Your task to perform on an android device: set default search engine in the chrome app Image 0: 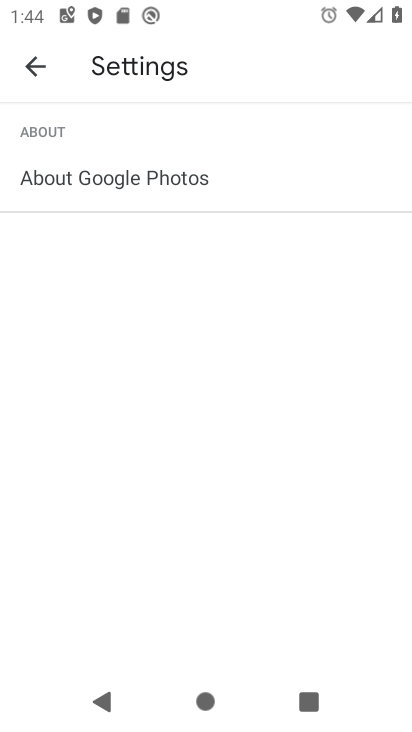
Step 0: press home button
Your task to perform on an android device: set default search engine in the chrome app Image 1: 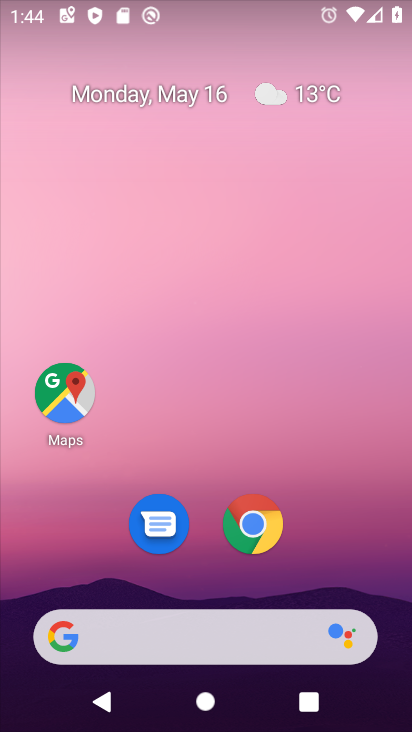
Step 1: click (264, 533)
Your task to perform on an android device: set default search engine in the chrome app Image 2: 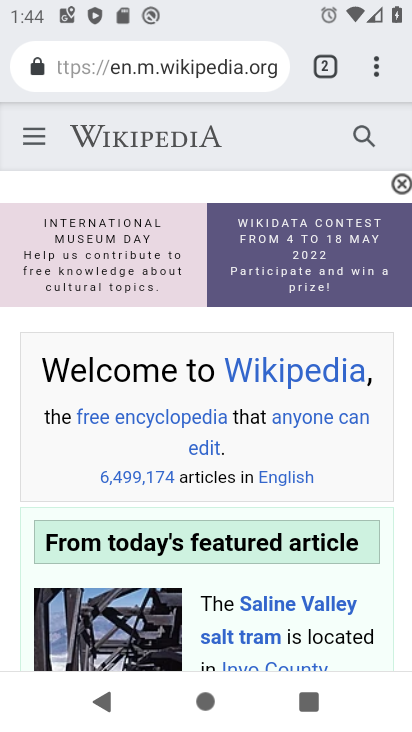
Step 2: click (369, 59)
Your task to perform on an android device: set default search engine in the chrome app Image 3: 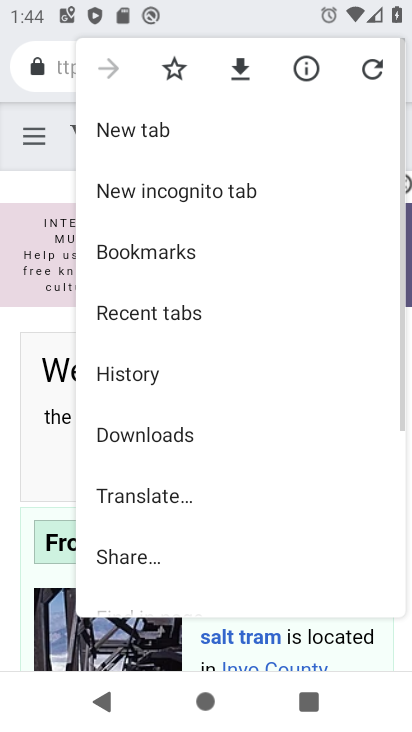
Step 3: drag from (303, 464) to (324, 205)
Your task to perform on an android device: set default search engine in the chrome app Image 4: 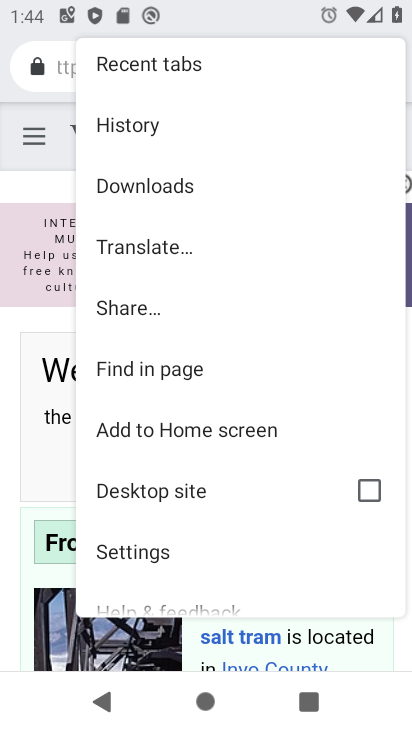
Step 4: click (183, 557)
Your task to perform on an android device: set default search engine in the chrome app Image 5: 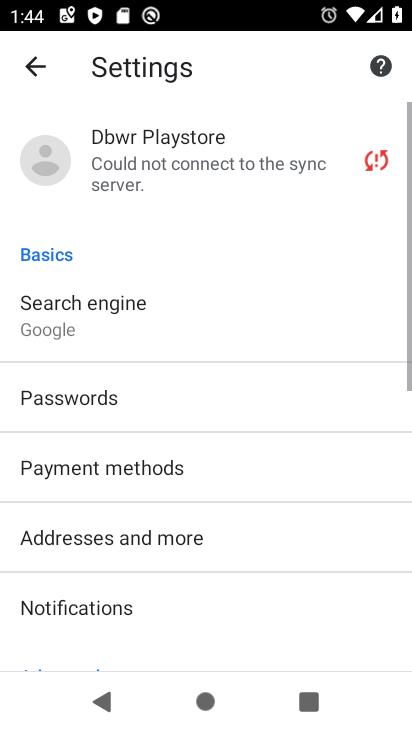
Step 5: click (146, 319)
Your task to perform on an android device: set default search engine in the chrome app Image 6: 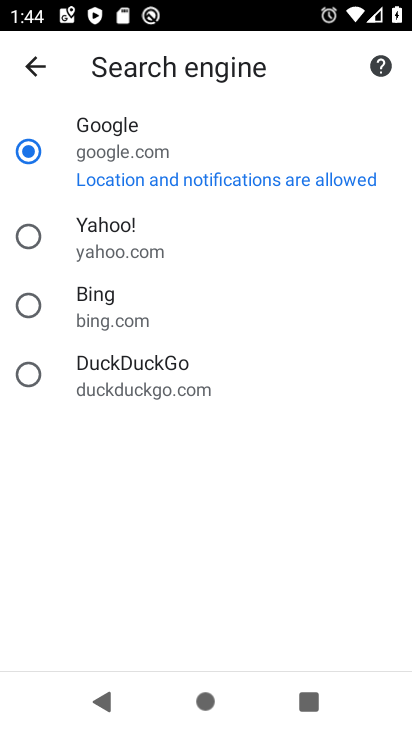
Step 6: task complete